Your task to perform on an android device: Go to location settings Image 0: 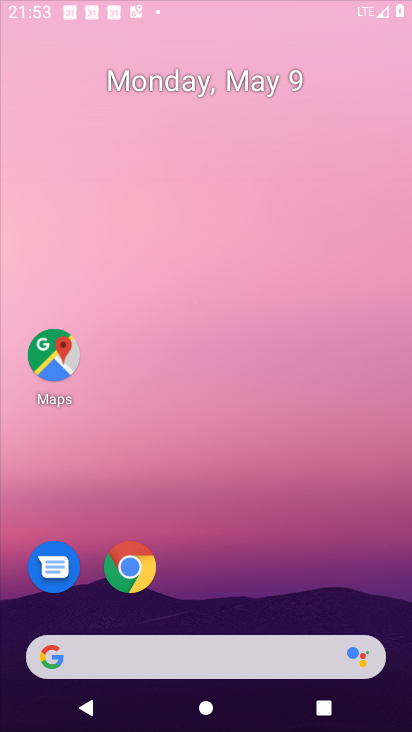
Step 0: drag from (220, 524) to (282, 154)
Your task to perform on an android device: Go to location settings Image 1: 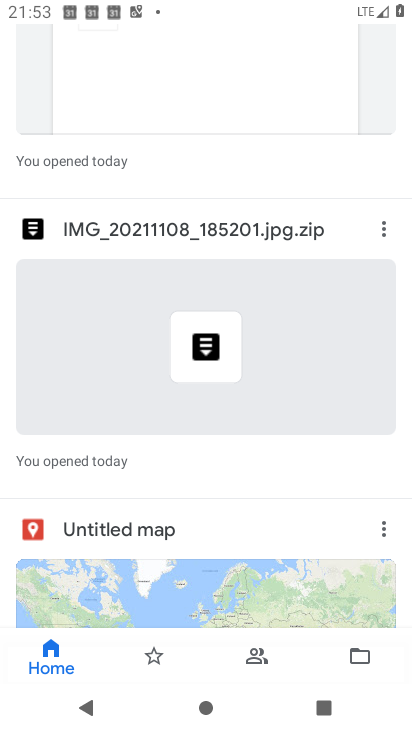
Step 1: drag from (254, 206) to (283, 703)
Your task to perform on an android device: Go to location settings Image 2: 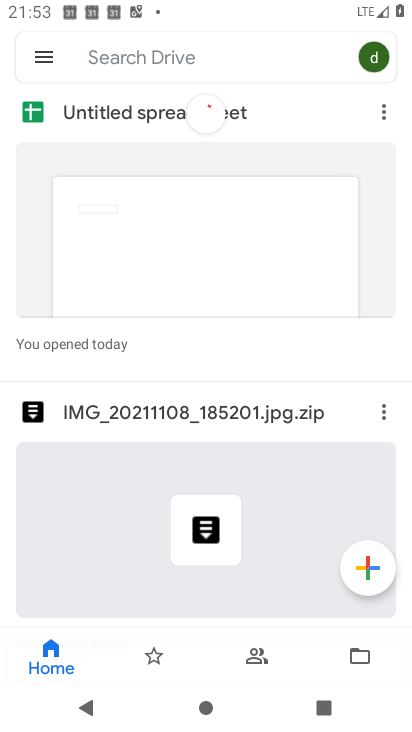
Step 2: click (36, 65)
Your task to perform on an android device: Go to location settings Image 3: 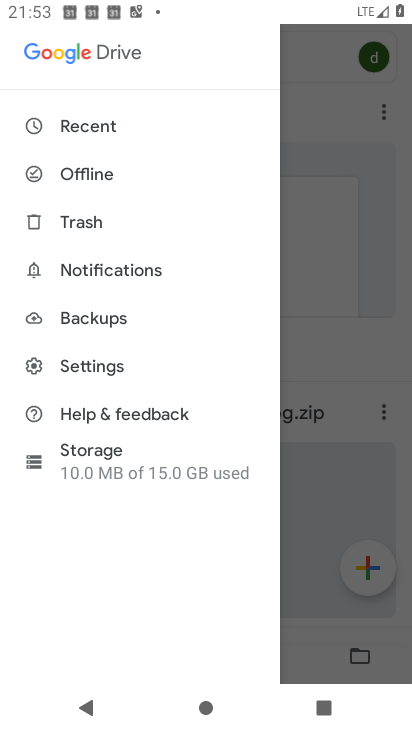
Step 3: press home button
Your task to perform on an android device: Go to location settings Image 4: 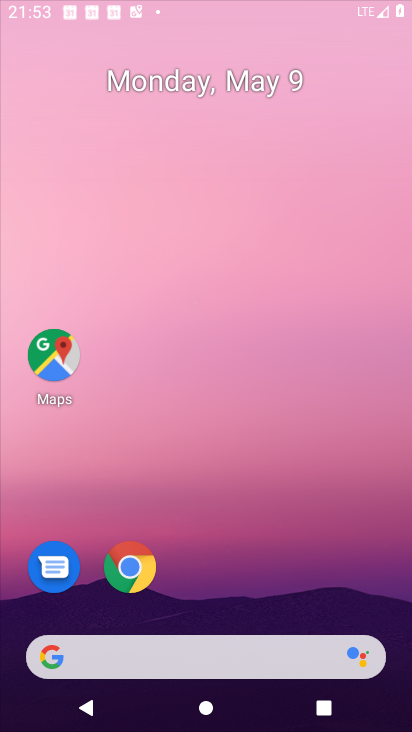
Step 4: drag from (249, 579) to (345, 207)
Your task to perform on an android device: Go to location settings Image 5: 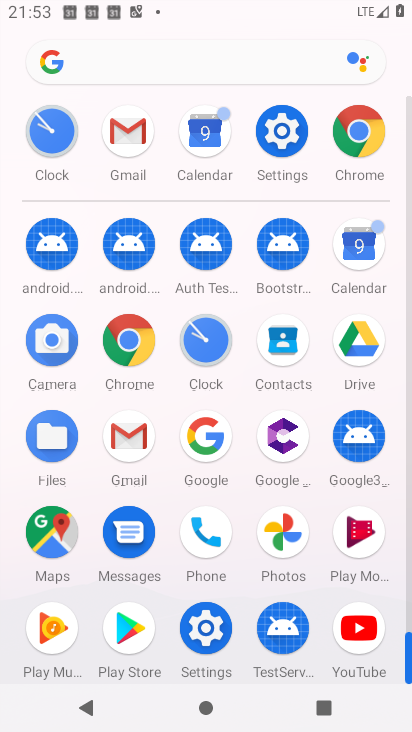
Step 5: click (264, 131)
Your task to perform on an android device: Go to location settings Image 6: 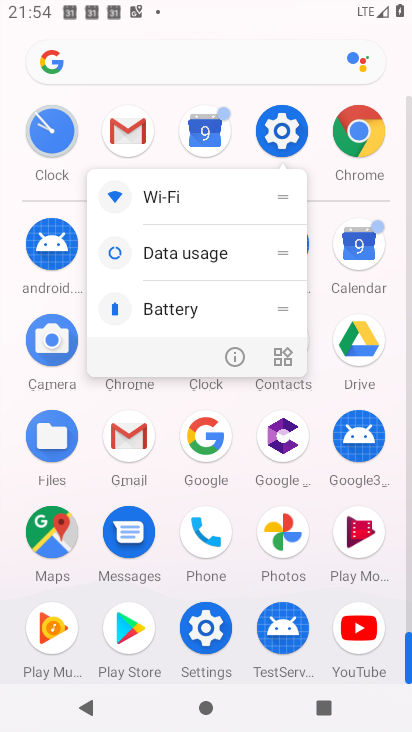
Step 6: click (242, 351)
Your task to perform on an android device: Go to location settings Image 7: 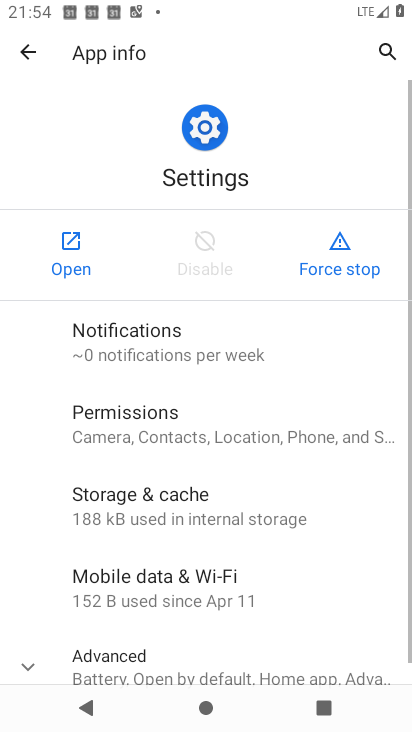
Step 7: drag from (253, 566) to (380, 175)
Your task to perform on an android device: Go to location settings Image 8: 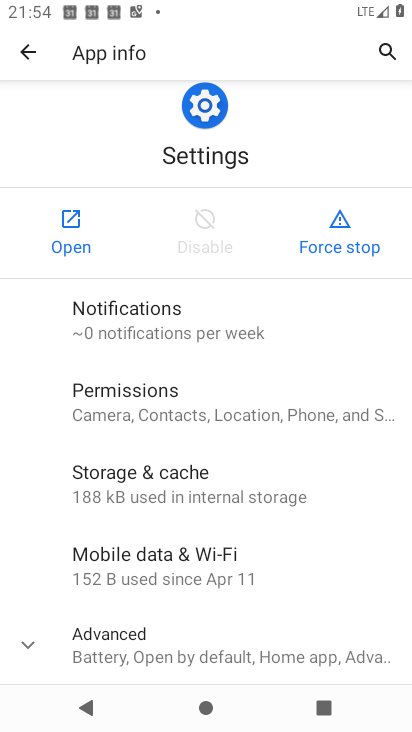
Step 8: click (47, 216)
Your task to perform on an android device: Go to location settings Image 9: 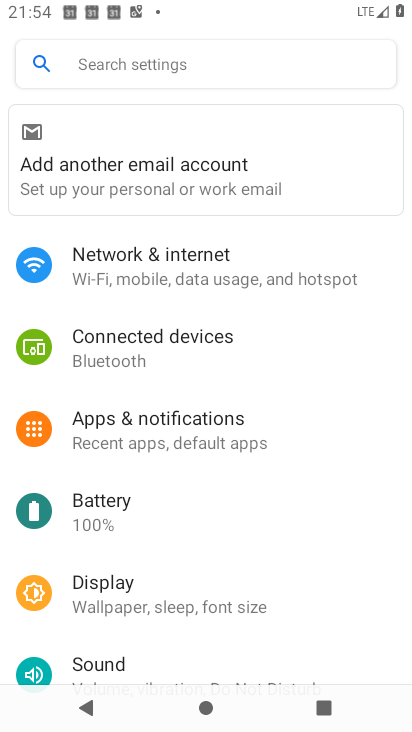
Step 9: drag from (229, 639) to (346, 141)
Your task to perform on an android device: Go to location settings Image 10: 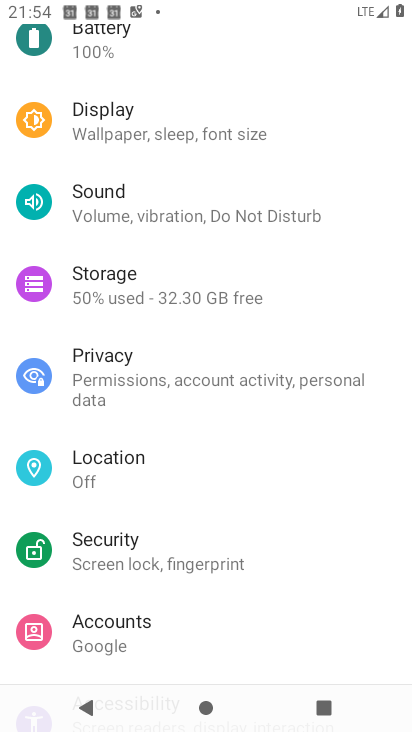
Step 10: click (148, 473)
Your task to perform on an android device: Go to location settings Image 11: 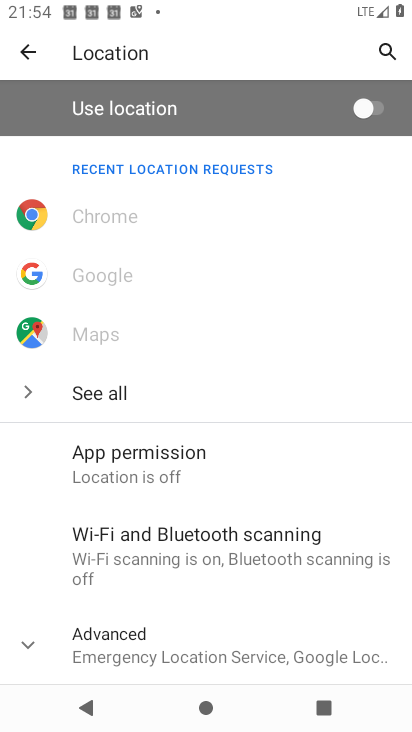
Step 11: drag from (216, 622) to (261, 328)
Your task to perform on an android device: Go to location settings Image 12: 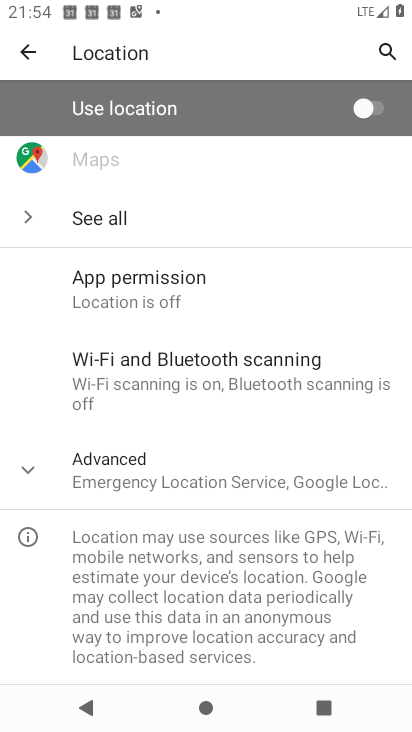
Step 12: click (118, 487)
Your task to perform on an android device: Go to location settings Image 13: 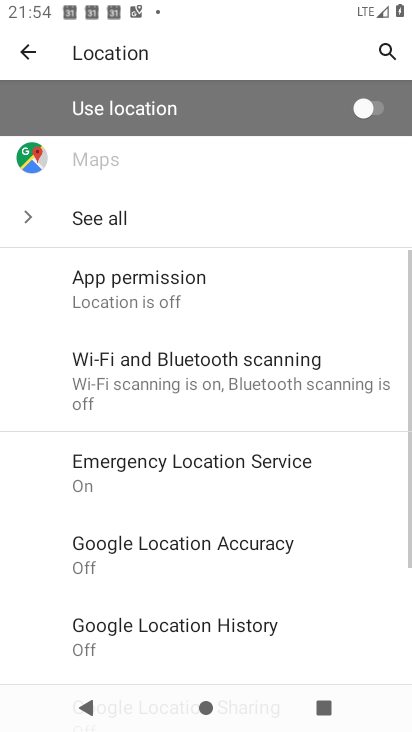
Step 13: task complete